Your task to perform on an android device: When is my next appointment? Image 0: 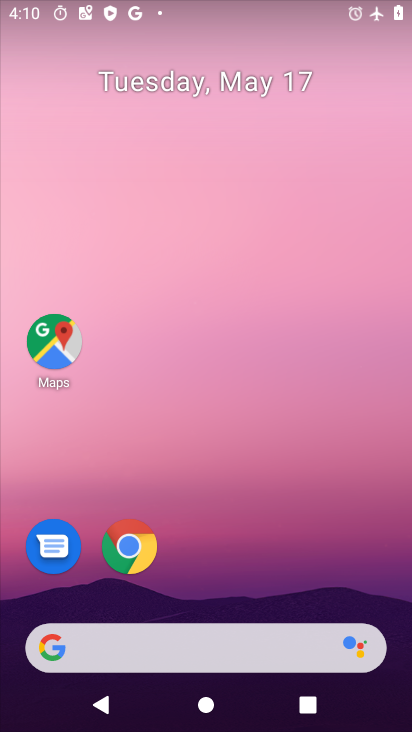
Step 0: drag from (397, 605) to (360, 334)
Your task to perform on an android device: When is my next appointment? Image 1: 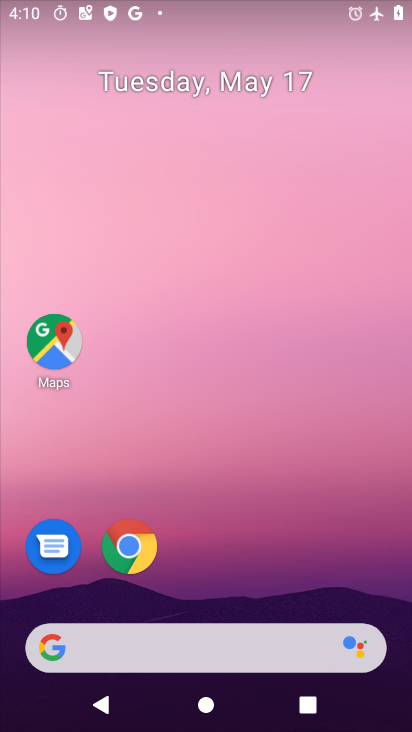
Step 1: drag from (404, 666) to (353, 189)
Your task to perform on an android device: When is my next appointment? Image 2: 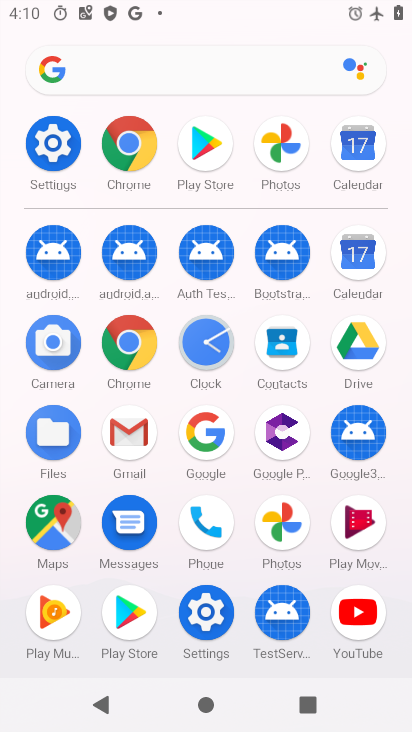
Step 2: click (353, 258)
Your task to perform on an android device: When is my next appointment? Image 3: 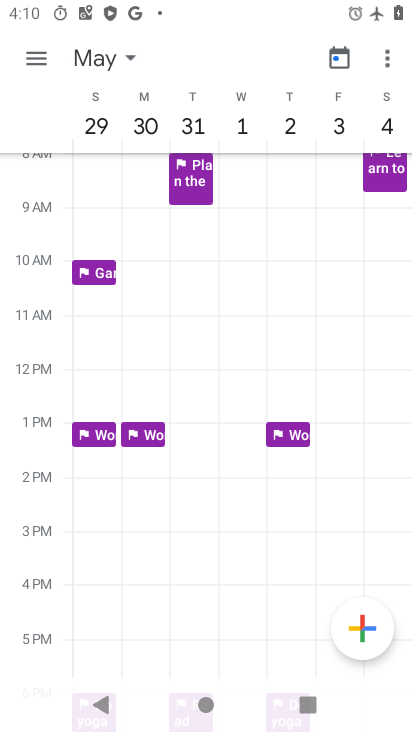
Step 3: click (28, 58)
Your task to perform on an android device: When is my next appointment? Image 4: 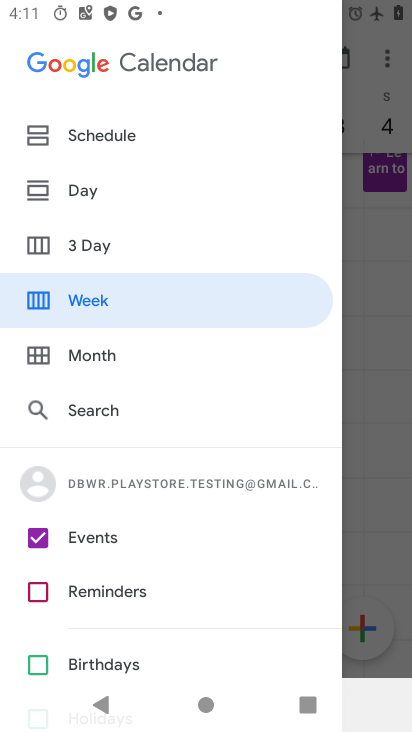
Step 4: click (123, 289)
Your task to perform on an android device: When is my next appointment? Image 5: 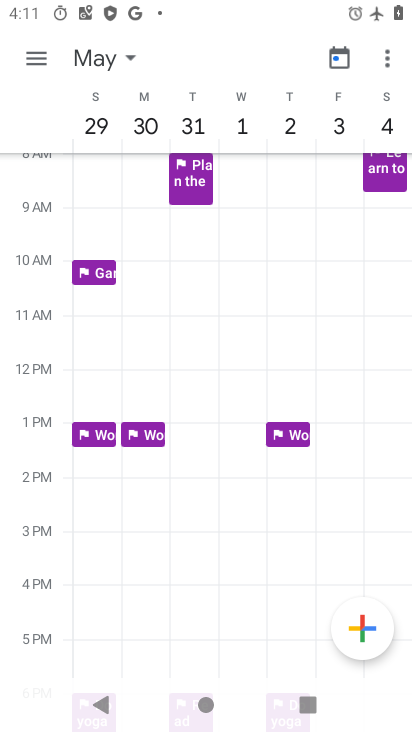
Step 5: task complete